Your task to perform on an android device: turn off wifi Image 0: 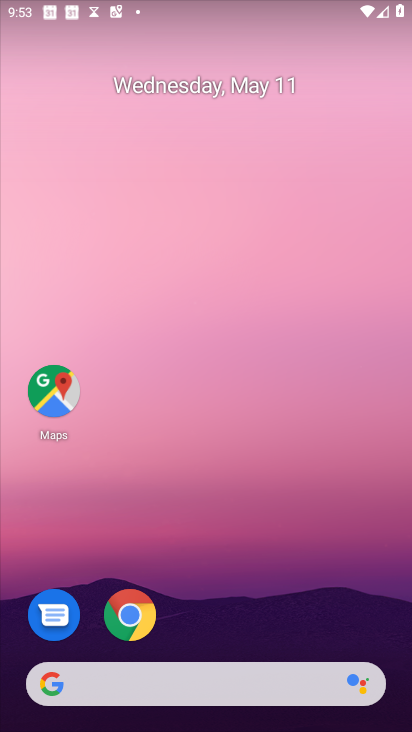
Step 0: drag from (210, 1) to (122, 508)
Your task to perform on an android device: turn off wifi Image 1: 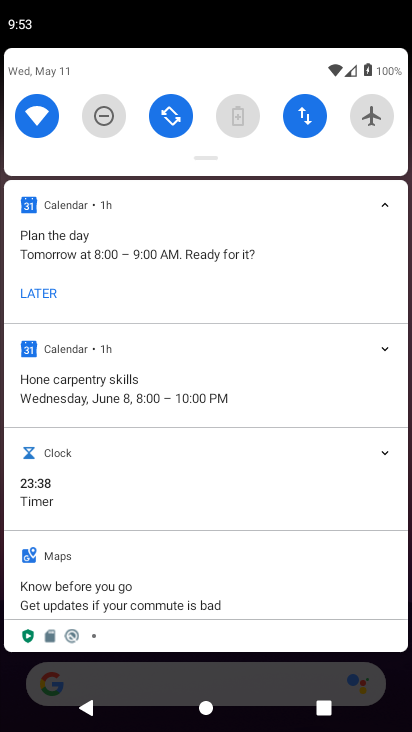
Step 1: click (17, 134)
Your task to perform on an android device: turn off wifi Image 2: 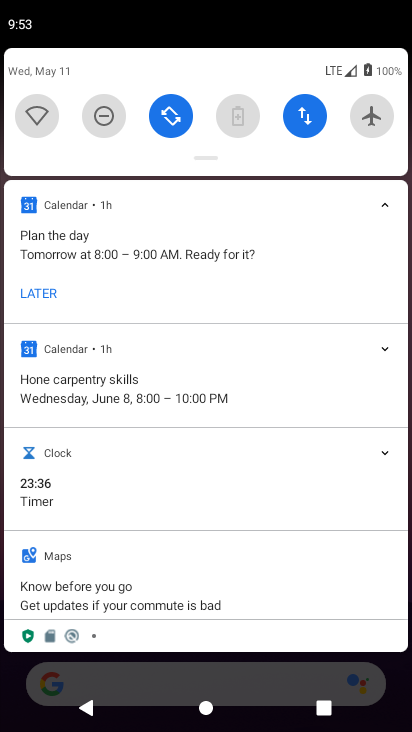
Step 2: task complete